Your task to perform on an android device: Open Amazon Image 0: 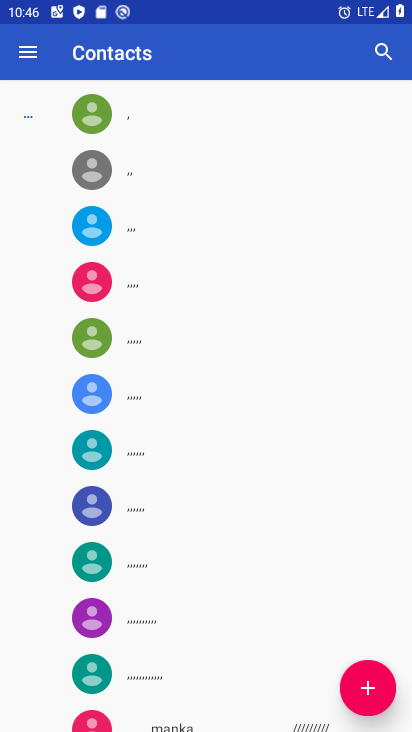
Step 0: press home button
Your task to perform on an android device: Open Amazon Image 1: 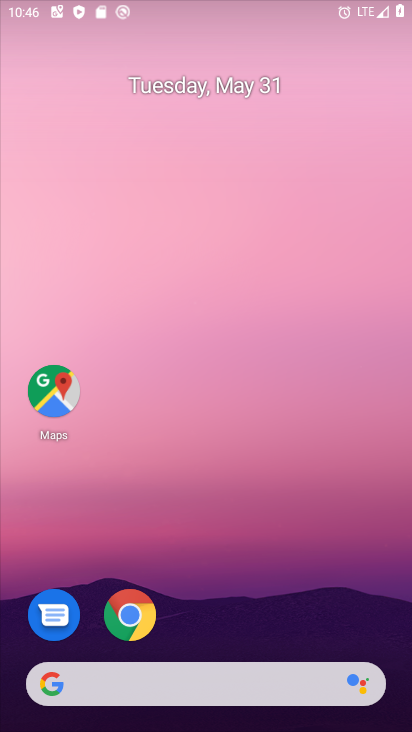
Step 1: drag from (316, 573) to (340, 18)
Your task to perform on an android device: Open Amazon Image 2: 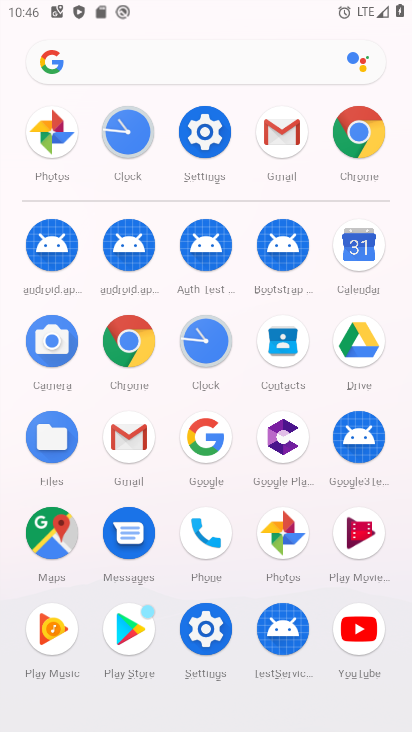
Step 2: click (358, 138)
Your task to perform on an android device: Open Amazon Image 3: 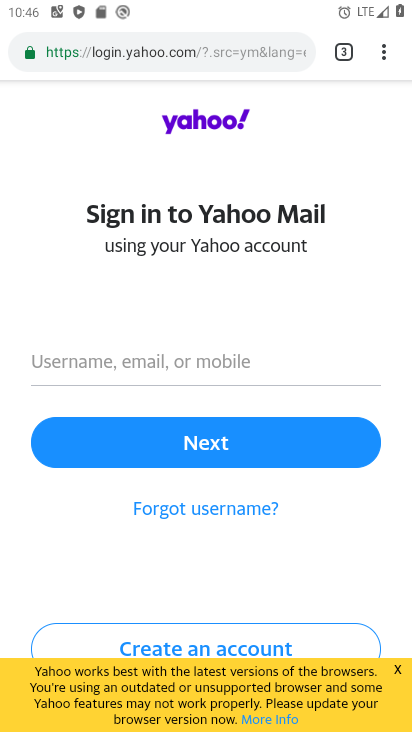
Step 3: click (260, 56)
Your task to perform on an android device: Open Amazon Image 4: 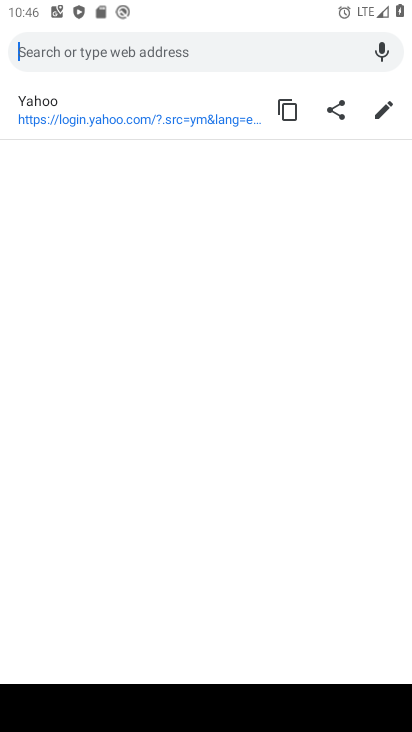
Step 4: type "amazon"
Your task to perform on an android device: Open Amazon Image 5: 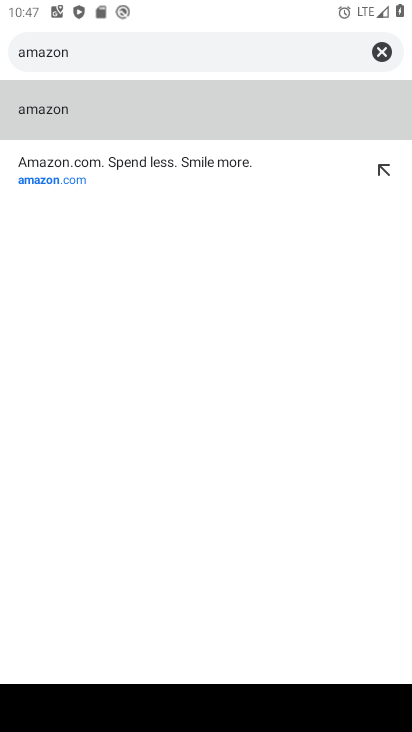
Step 5: click (73, 152)
Your task to perform on an android device: Open Amazon Image 6: 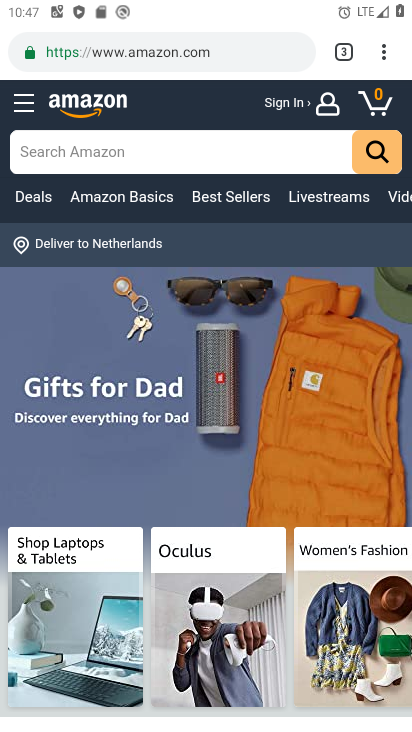
Step 6: task complete